Your task to perform on an android device: Turn off the flashlight Image 0: 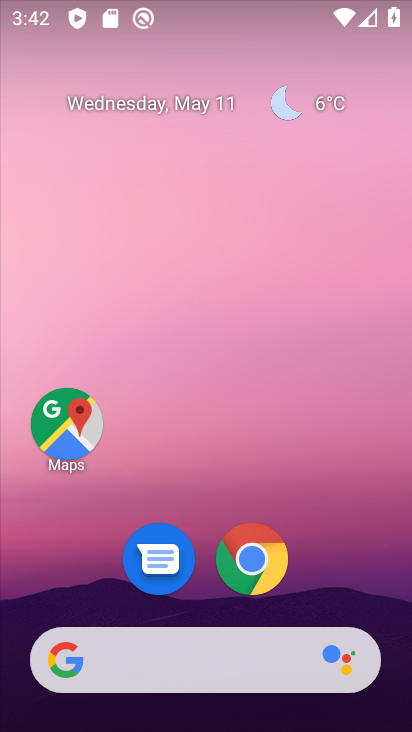
Step 0: drag from (349, 548) to (329, 62)
Your task to perform on an android device: Turn off the flashlight Image 1: 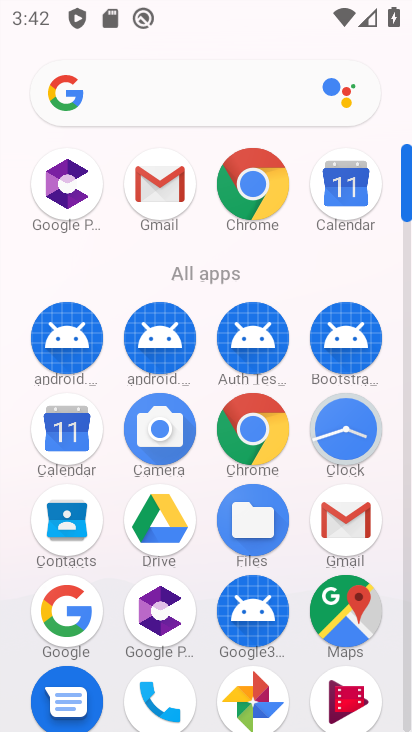
Step 1: drag from (403, 640) to (342, 259)
Your task to perform on an android device: Turn off the flashlight Image 2: 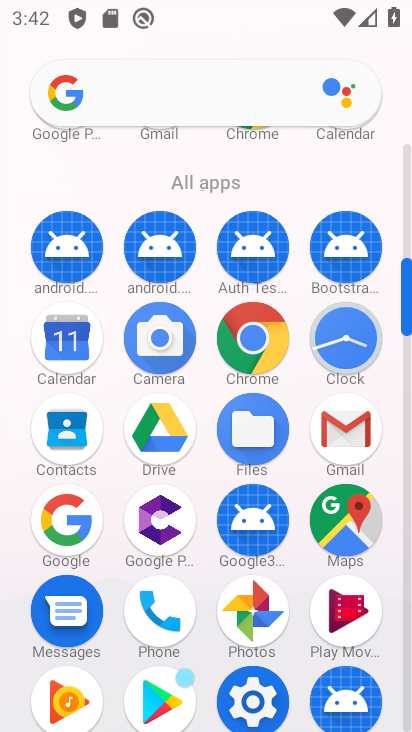
Step 2: click (269, 710)
Your task to perform on an android device: Turn off the flashlight Image 3: 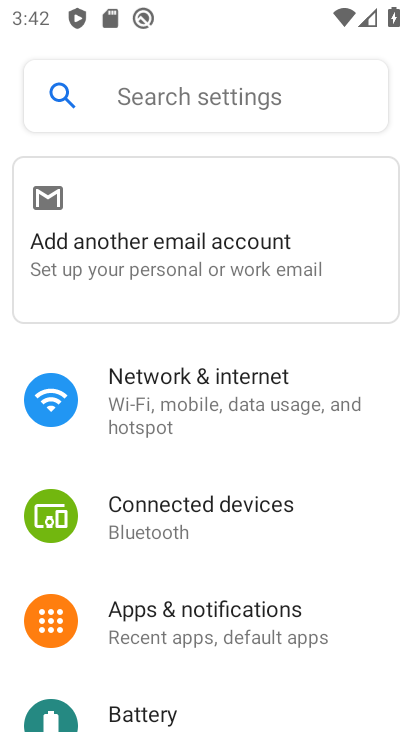
Step 3: task complete